Your task to perform on an android device: change alarm snooze length Image 0: 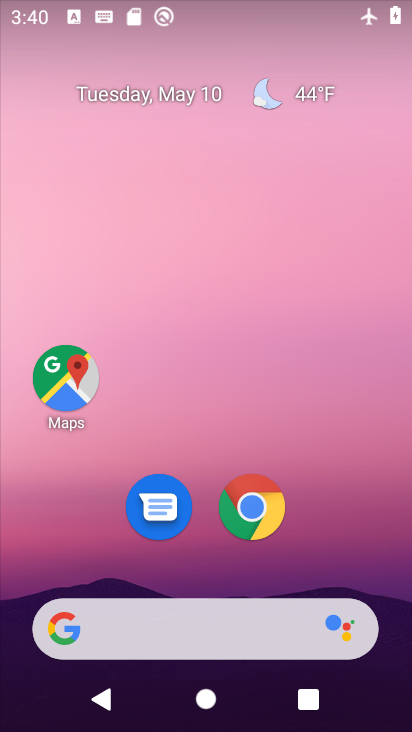
Step 0: drag from (199, 555) to (264, 147)
Your task to perform on an android device: change alarm snooze length Image 1: 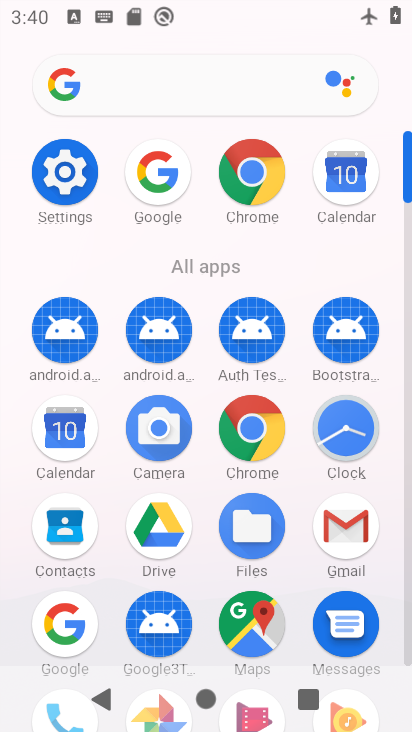
Step 1: click (358, 428)
Your task to perform on an android device: change alarm snooze length Image 2: 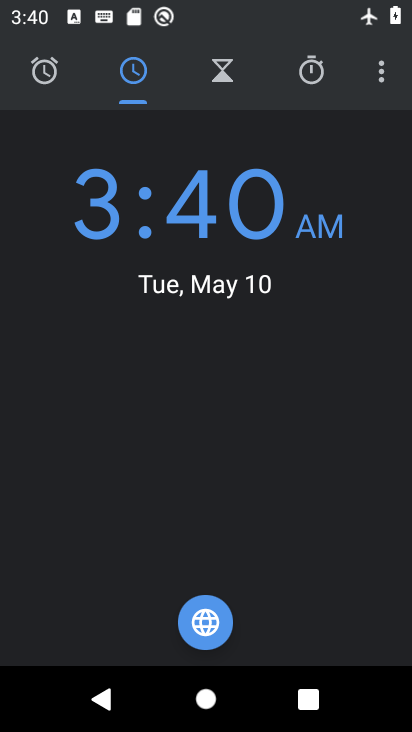
Step 2: click (383, 74)
Your task to perform on an android device: change alarm snooze length Image 3: 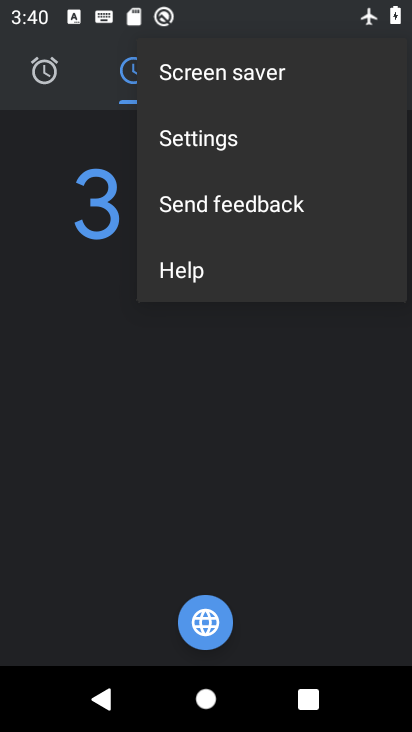
Step 3: click (204, 134)
Your task to perform on an android device: change alarm snooze length Image 4: 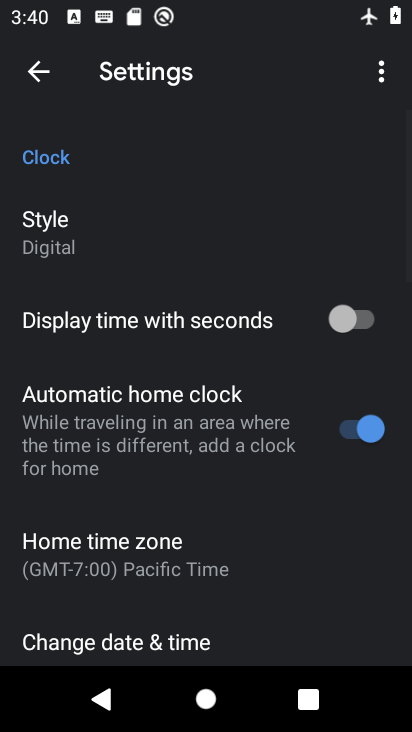
Step 4: drag from (123, 489) to (164, 284)
Your task to perform on an android device: change alarm snooze length Image 5: 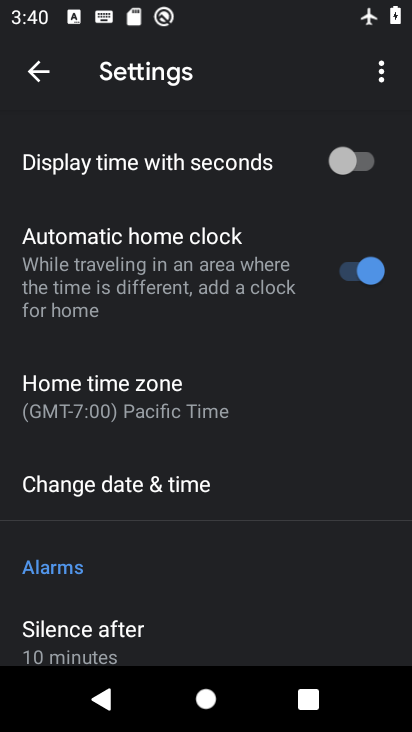
Step 5: drag from (132, 582) to (164, 303)
Your task to perform on an android device: change alarm snooze length Image 6: 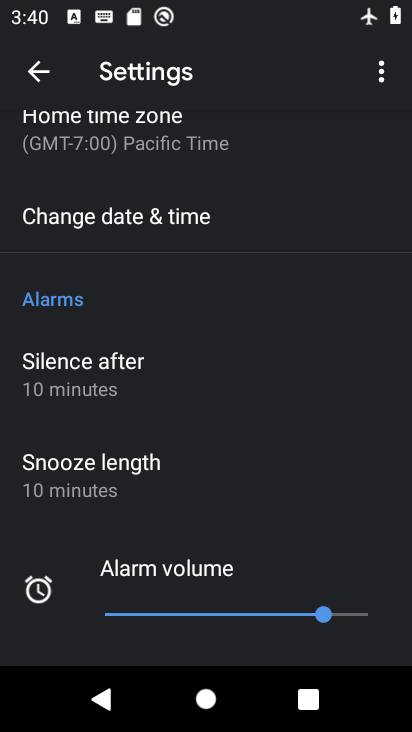
Step 6: click (152, 480)
Your task to perform on an android device: change alarm snooze length Image 7: 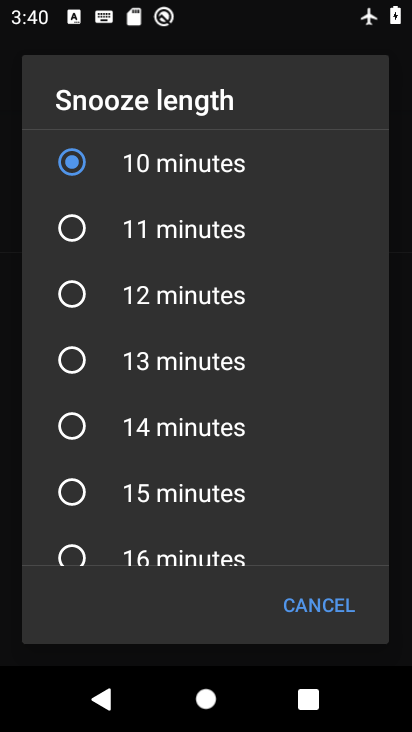
Step 7: click (79, 236)
Your task to perform on an android device: change alarm snooze length Image 8: 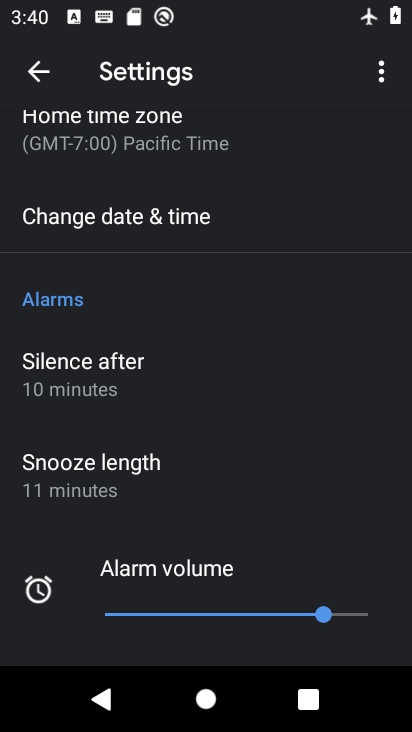
Step 8: task complete